Your task to perform on an android device: find photos in the google photos app Image 0: 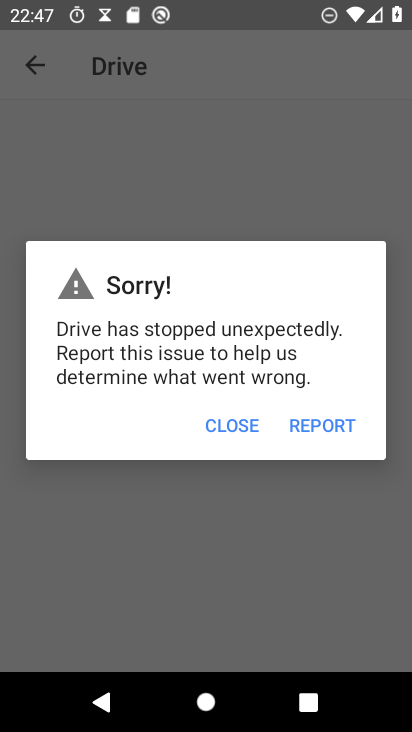
Step 0: press home button
Your task to perform on an android device: find photos in the google photos app Image 1: 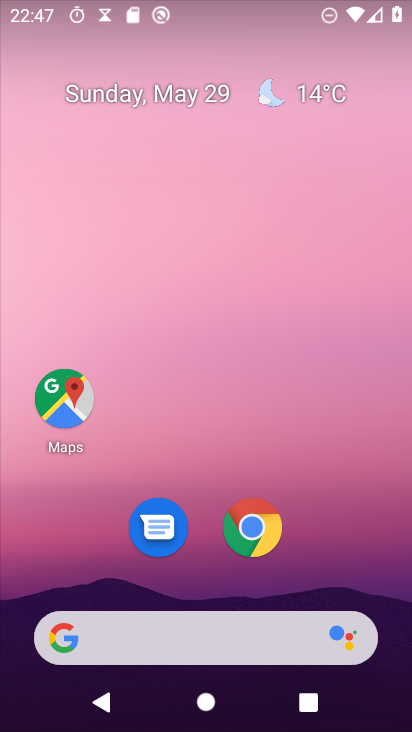
Step 1: drag from (120, 634) to (301, 87)
Your task to perform on an android device: find photos in the google photos app Image 2: 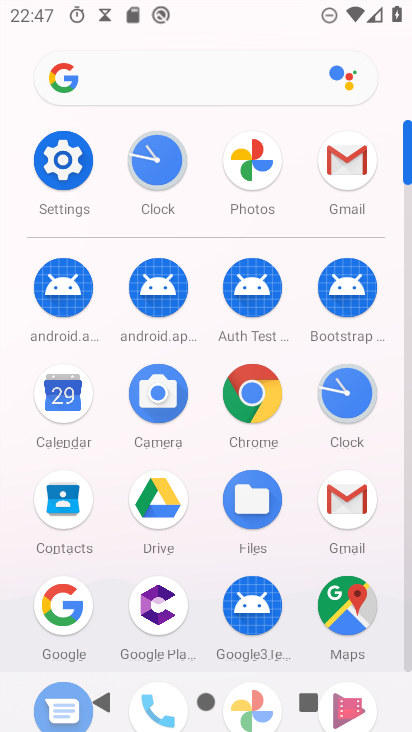
Step 2: click (253, 161)
Your task to perform on an android device: find photos in the google photos app Image 3: 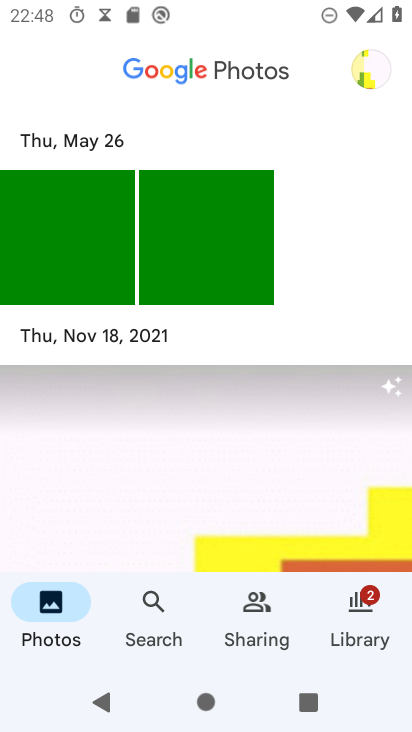
Step 3: task complete